Your task to perform on an android device: Go to ESPN.com Image 0: 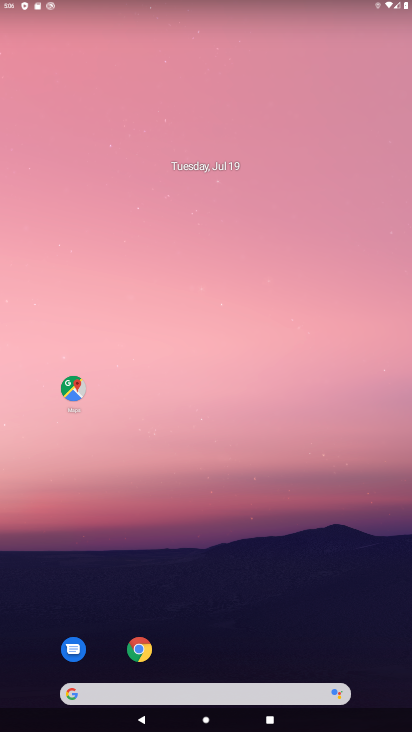
Step 0: drag from (285, 609) to (165, 87)
Your task to perform on an android device: Go to ESPN.com Image 1: 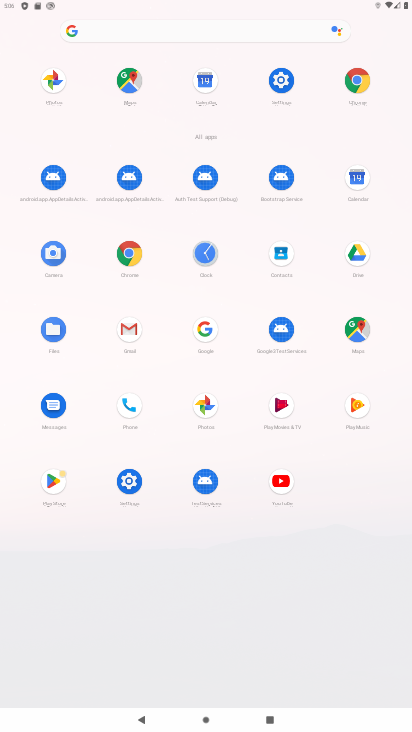
Step 1: click (357, 83)
Your task to perform on an android device: Go to ESPN.com Image 2: 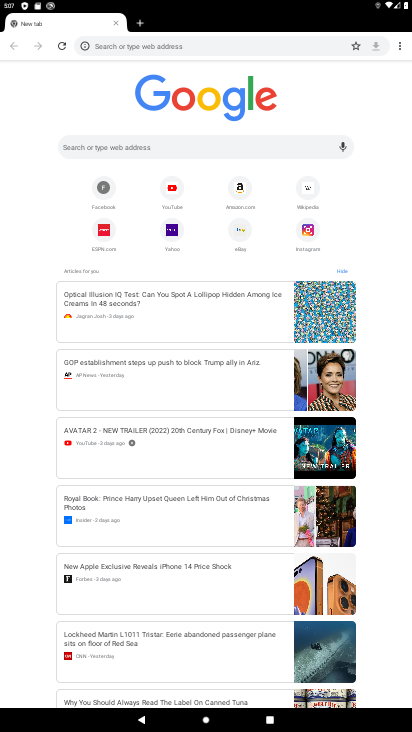
Step 2: click (107, 242)
Your task to perform on an android device: Go to ESPN.com Image 3: 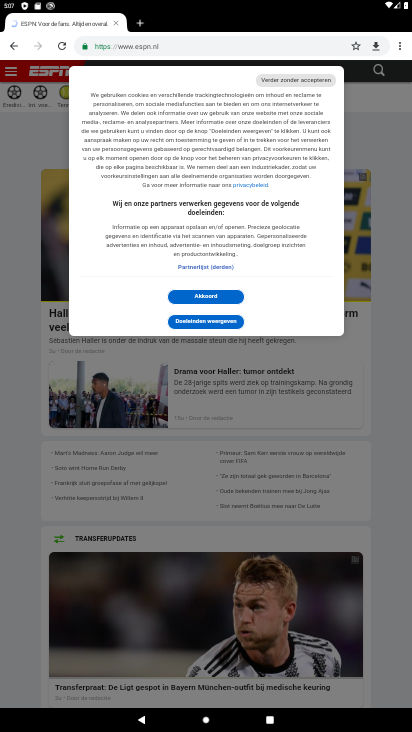
Step 3: task complete